Your task to perform on an android device: Go to calendar. Show me events next week Image 0: 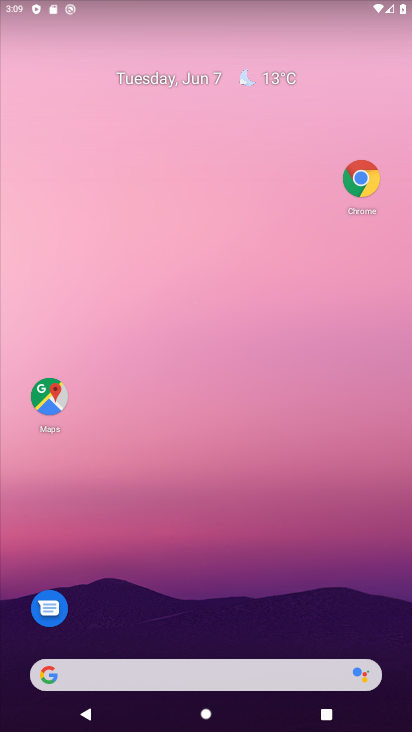
Step 0: drag from (204, 644) to (288, 101)
Your task to perform on an android device: Go to calendar. Show me events next week Image 1: 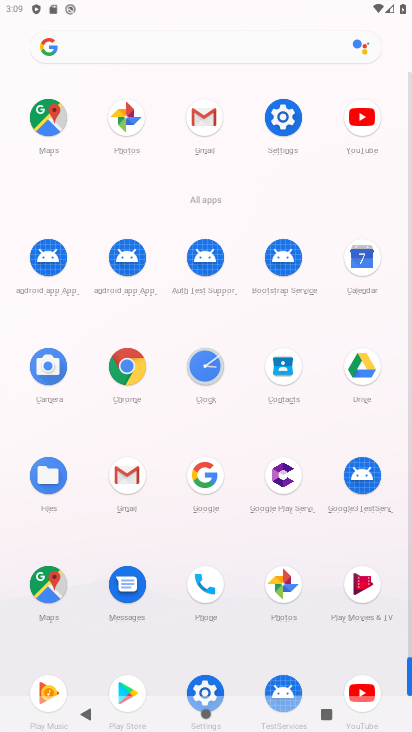
Step 1: click (363, 258)
Your task to perform on an android device: Go to calendar. Show me events next week Image 2: 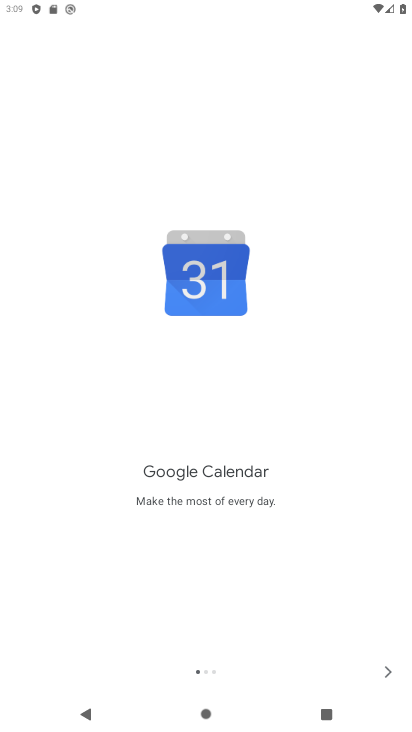
Step 2: click (388, 672)
Your task to perform on an android device: Go to calendar. Show me events next week Image 3: 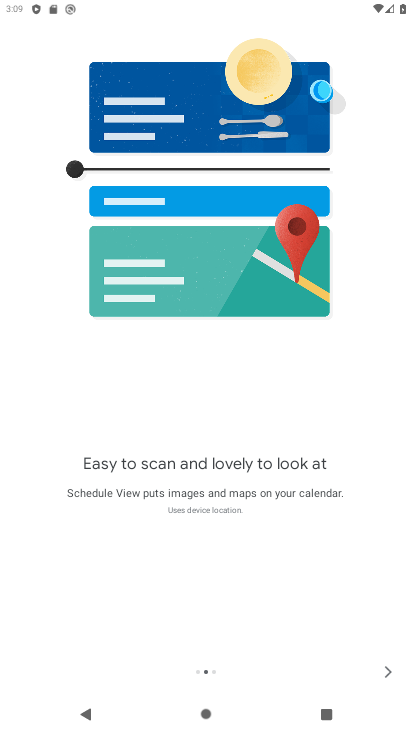
Step 3: click (386, 674)
Your task to perform on an android device: Go to calendar. Show me events next week Image 4: 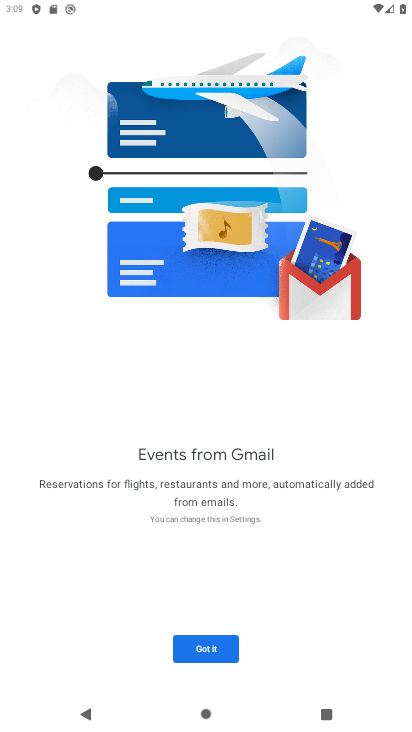
Step 4: click (217, 643)
Your task to perform on an android device: Go to calendar. Show me events next week Image 5: 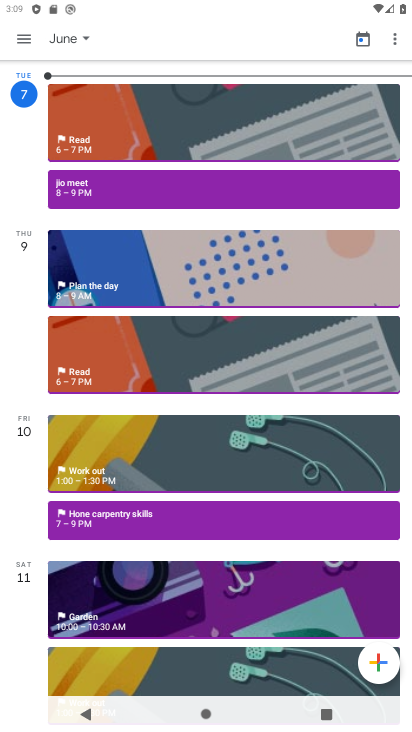
Step 5: click (65, 39)
Your task to perform on an android device: Go to calendar. Show me events next week Image 6: 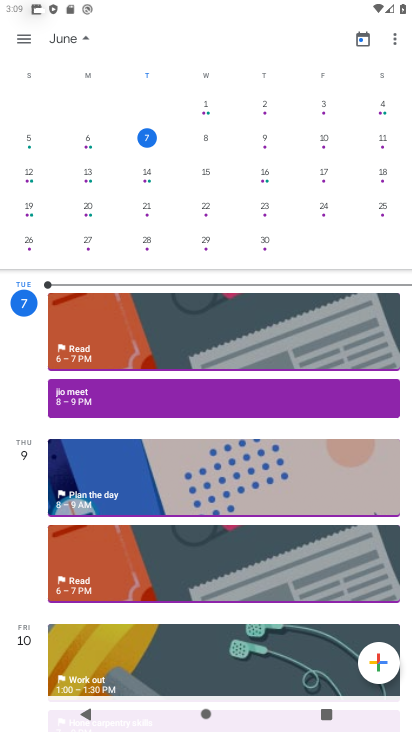
Step 6: click (29, 181)
Your task to perform on an android device: Go to calendar. Show me events next week Image 7: 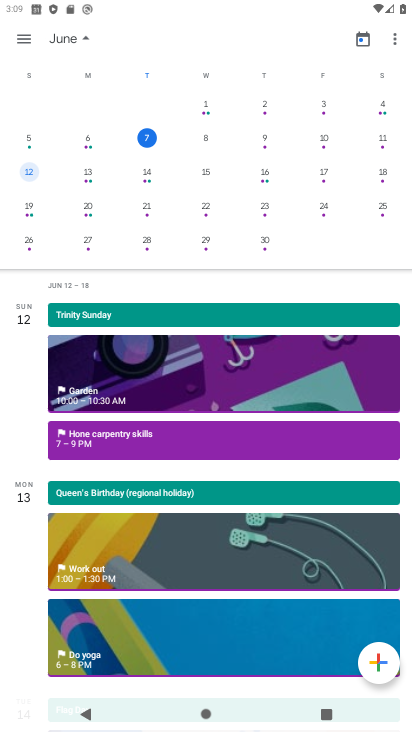
Step 7: click (34, 55)
Your task to perform on an android device: Go to calendar. Show me events next week Image 8: 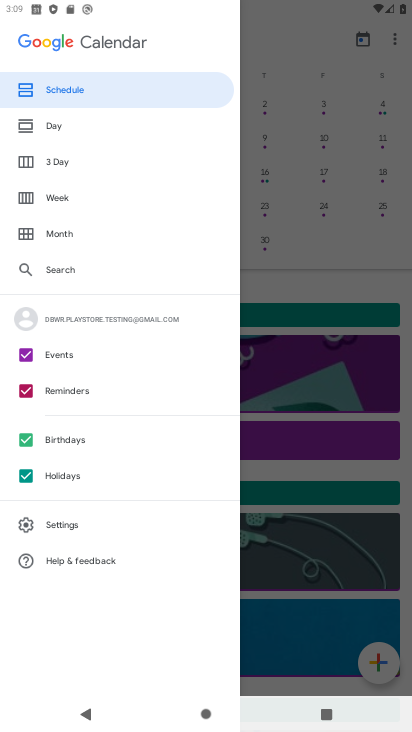
Step 8: click (79, 204)
Your task to perform on an android device: Go to calendar. Show me events next week Image 9: 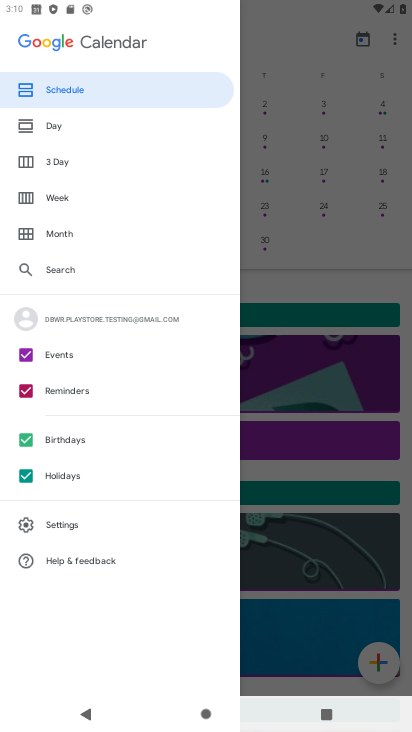
Step 9: click (79, 205)
Your task to perform on an android device: Go to calendar. Show me events next week Image 10: 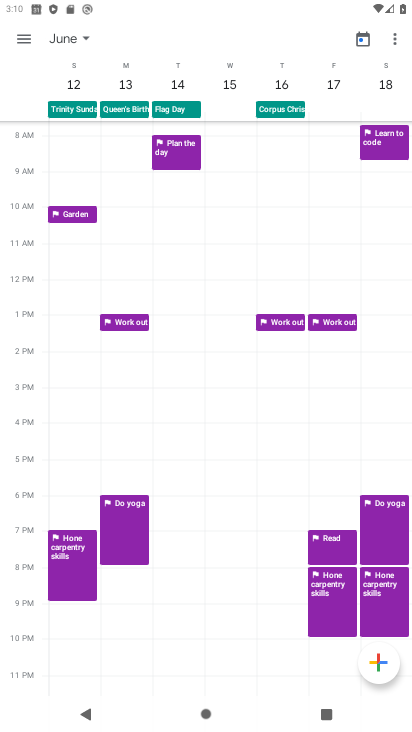
Step 10: task complete